Your task to perform on an android device: Show me recent news Image 0: 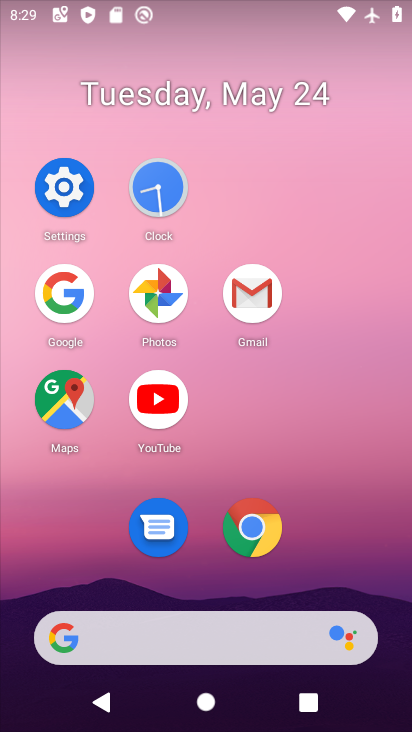
Step 0: click (66, 281)
Your task to perform on an android device: Show me recent news Image 1: 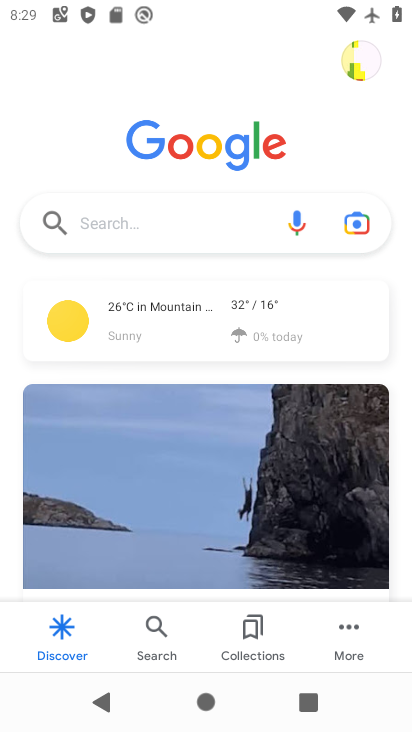
Step 1: click (175, 225)
Your task to perform on an android device: Show me recent news Image 2: 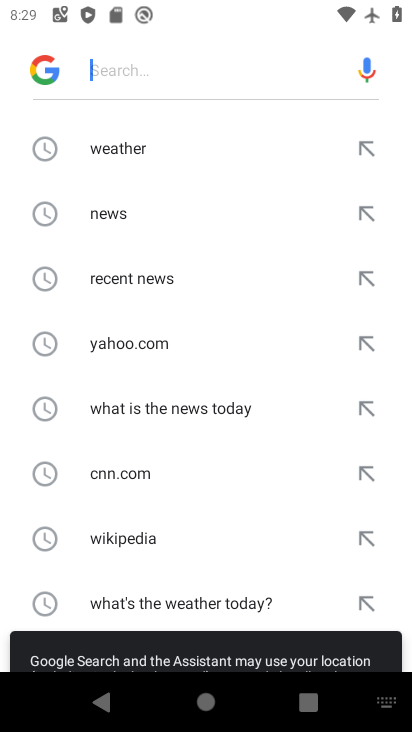
Step 2: click (119, 270)
Your task to perform on an android device: Show me recent news Image 3: 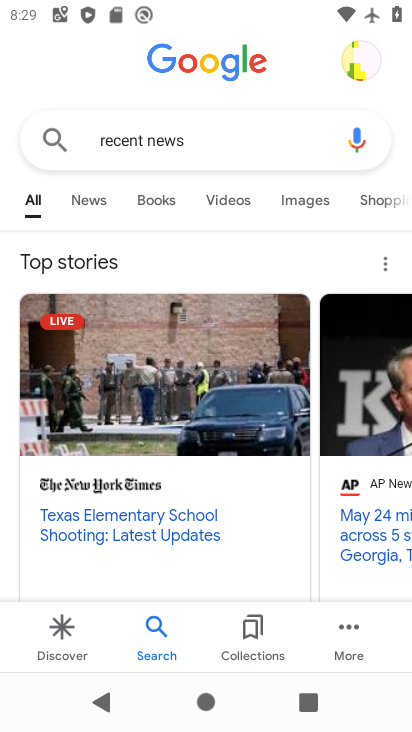
Step 3: task complete